Your task to perform on an android device: open app "Indeed Job Search" (install if not already installed) Image 0: 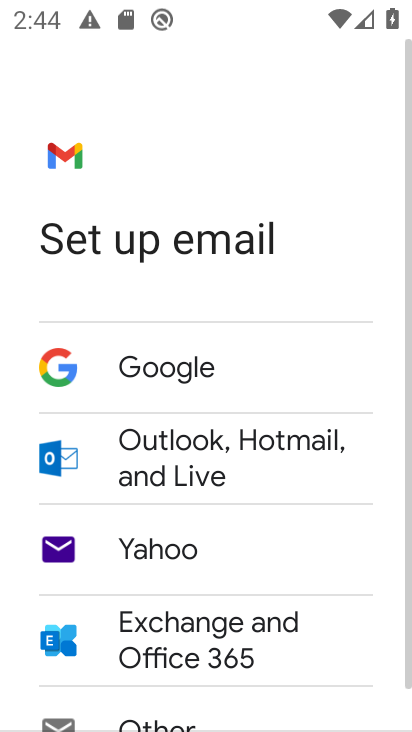
Step 0: press home button
Your task to perform on an android device: open app "Indeed Job Search" (install if not already installed) Image 1: 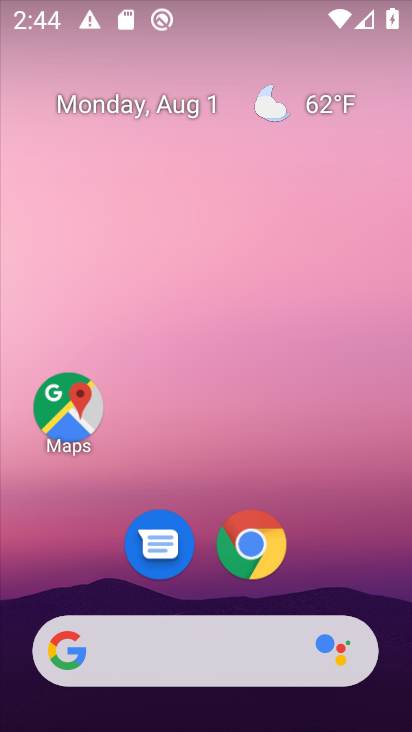
Step 1: drag from (379, 581) to (178, 37)
Your task to perform on an android device: open app "Indeed Job Search" (install if not already installed) Image 2: 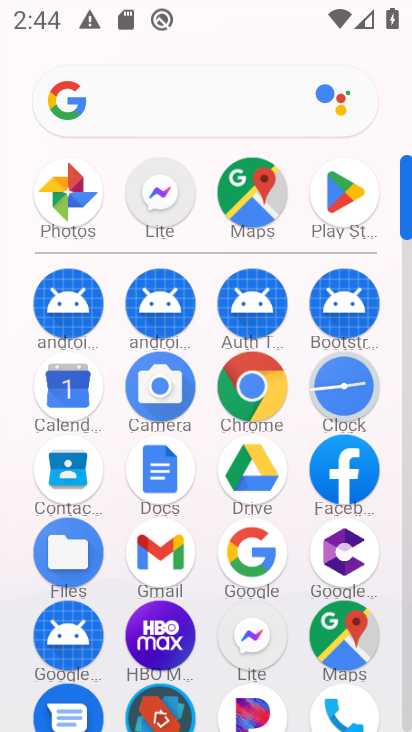
Step 2: click (319, 208)
Your task to perform on an android device: open app "Indeed Job Search" (install if not already installed) Image 3: 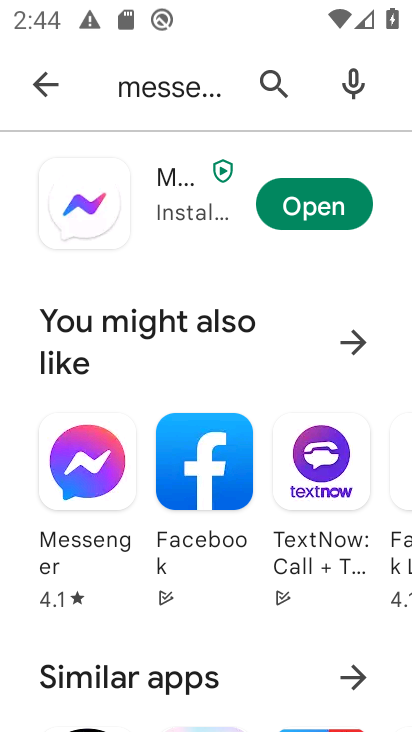
Step 3: press back button
Your task to perform on an android device: open app "Indeed Job Search" (install if not already installed) Image 4: 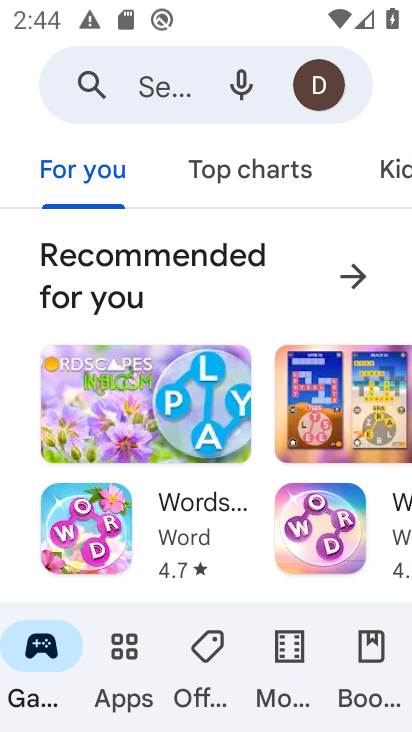
Step 4: click (149, 99)
Your task to perform on an android device: open app "Indeed Job Search" (install if not already installed) Image 5: 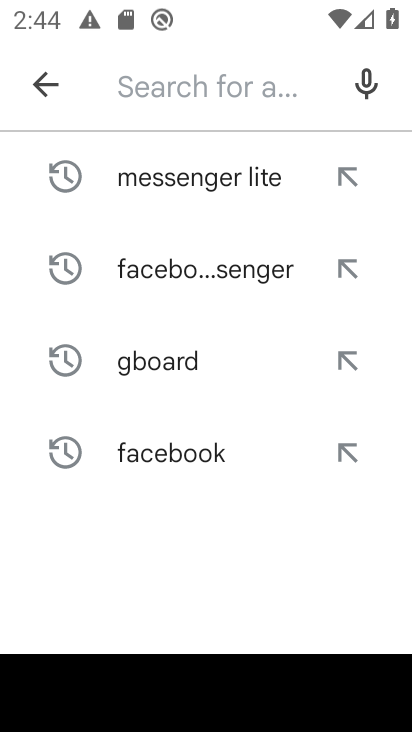
Step 5: type "Indeed Job Search"
Your task to perform on an android device: open app "Indeed Job Search" (install if not already installed) Image 6: 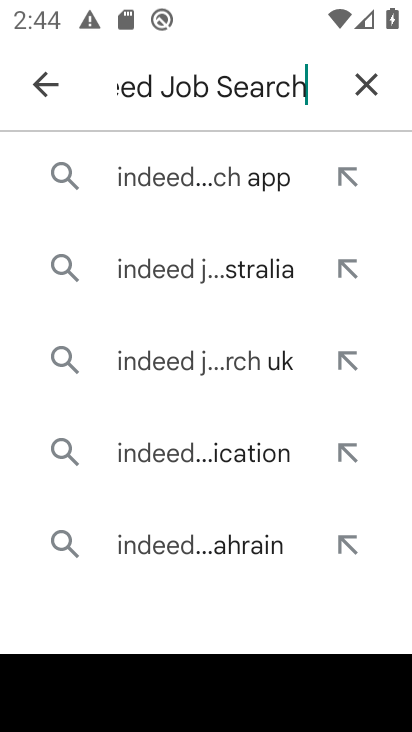
Step 6: click (189, 182)
Your task to perform on an android device: open app "Indeed Job Search" (install if not already installed) Image 7: 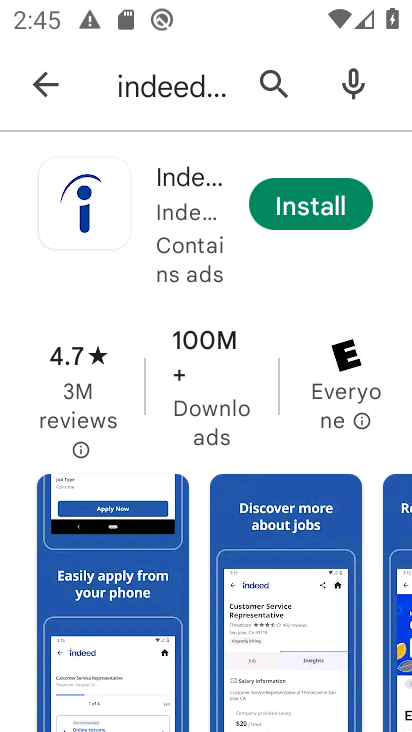
Step 7: task complete